Your task to perform on an android device: toggle javascript in the chrome app Image 0: 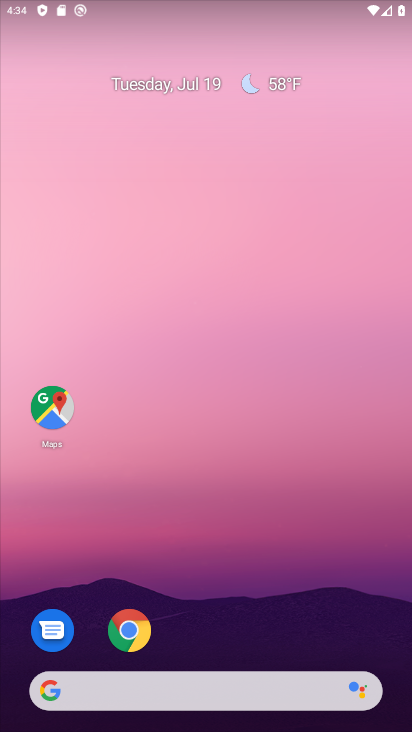
Step 0: drag from (220, 717) to (129, 25)
Your task to perform on an android device: toggle javascript in the chrome app Image 1: 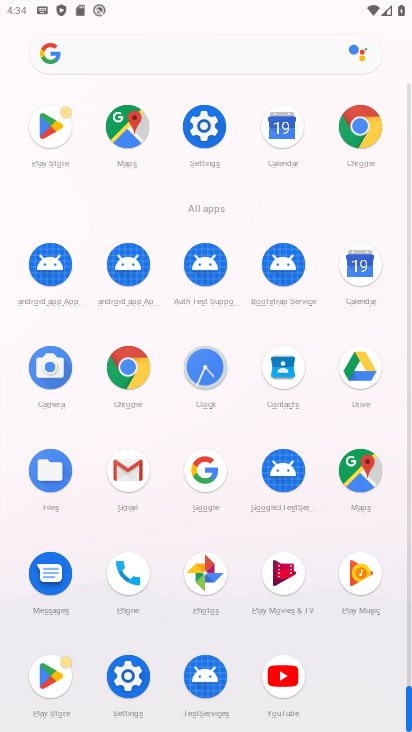
Step 1: click (369, 129)
Your task to perform on an android device: toggle javascript in the chrome app Image 2: 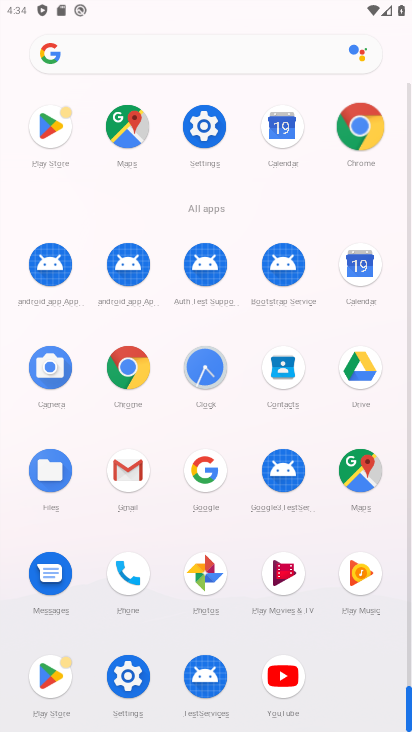
Step 2: click (352, 122)
Your task to perform on an android device: toggle javascript in the chrome app Image 3: 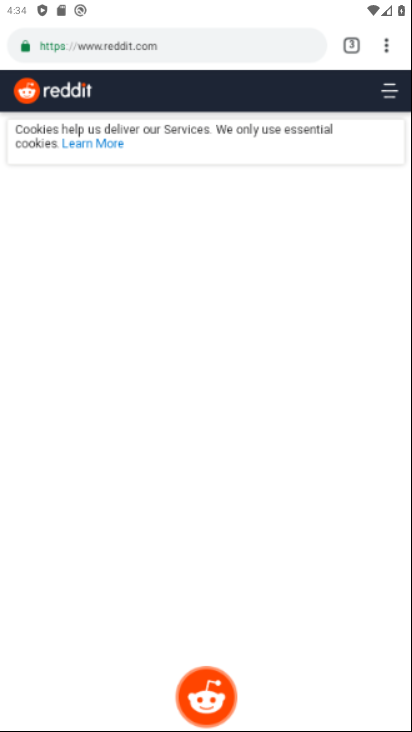
Step 3: click (352, 122)
Your task to perform on an android device: toggle javascript in the chrome app Image 4: 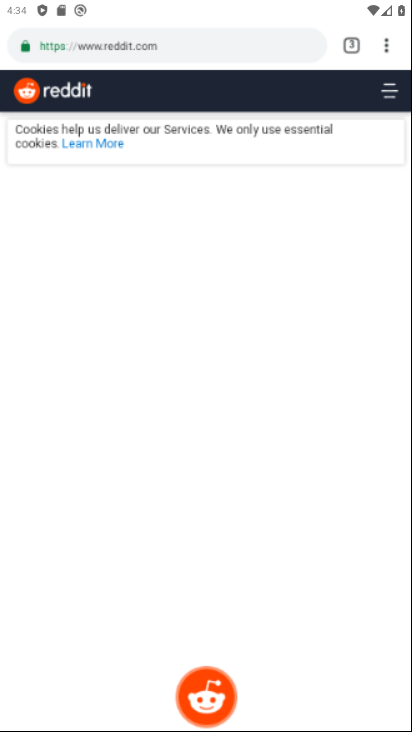
Step 4: click (352, 122)
Your task to perform on an android device: toggle javascript in the chrome app Image 5: 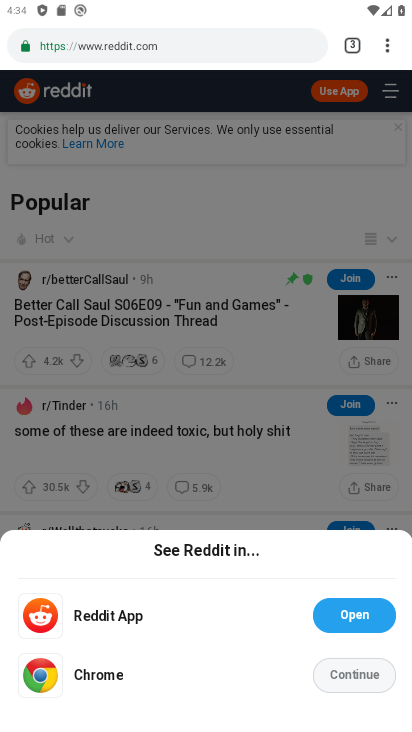
Step 5: drag from (388, 49) to (217, 543)
Your task to perform on an android device: toggle javascript in the chrome app Image 6: 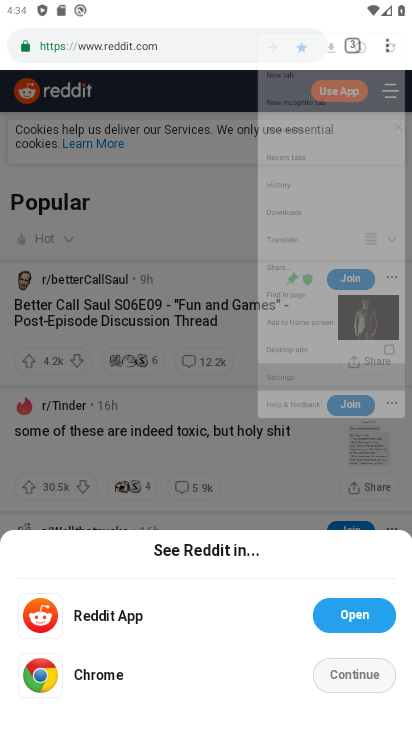
Step 6: click (217, 543)
Your task to perform on an android device: toggle javascript in the chrome app Image 7: 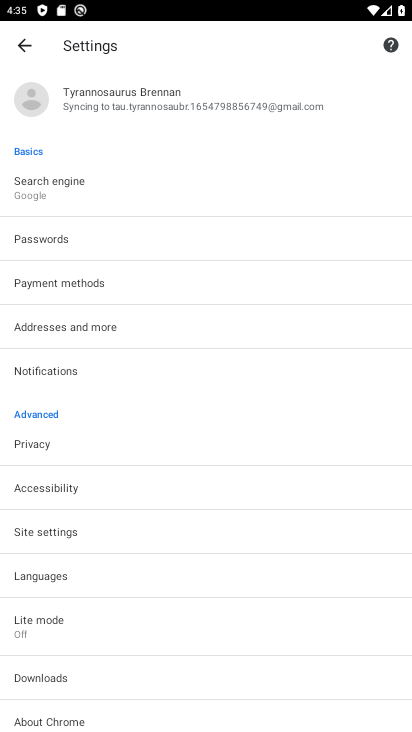
Step 7: click (55, 540)
Your task to perform on an android device: toggle javascript in the chrome app Image 8: 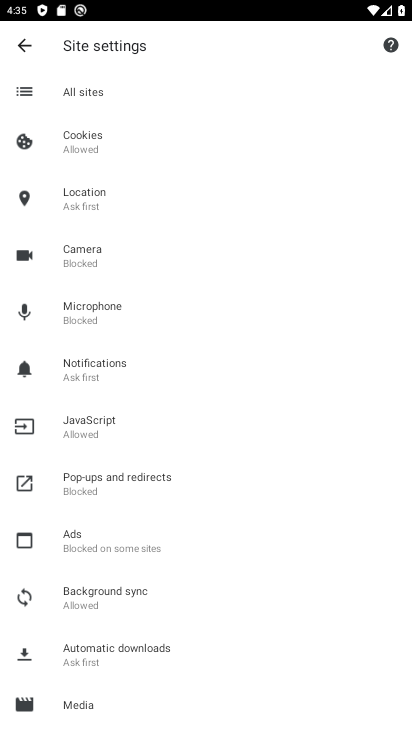
Step 8: click (109, 417)
Your task to perform on an android device: toggle javascript in the chrome app Image 9: 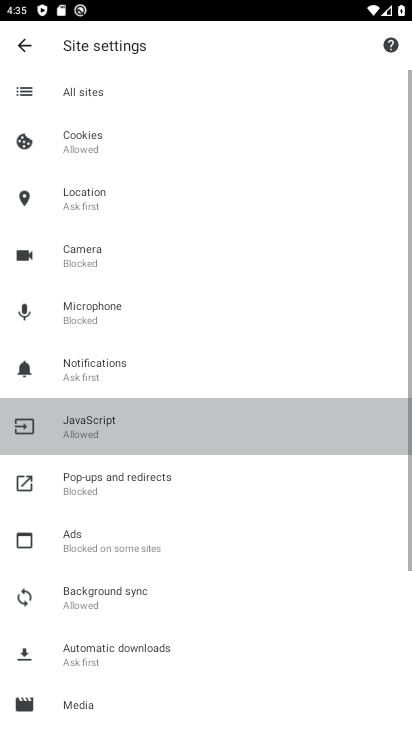
Step 9: click (113, 424)
Your task to perform on an android device: toggle javascript in the chrome app Image 10: 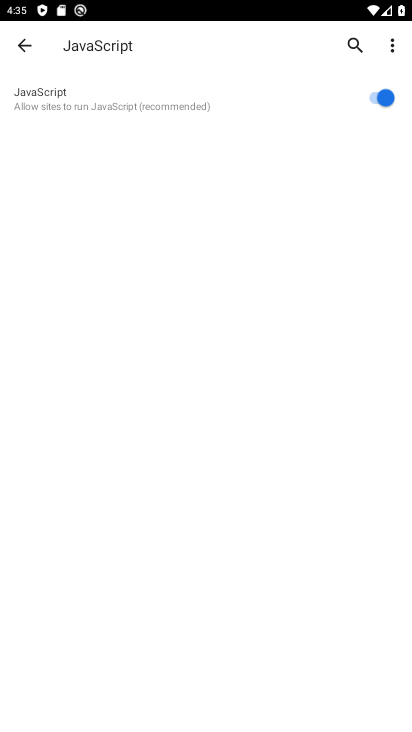
Step 10: task complete